Your task to perform on an android device: see tabs open on other devices in the chrome app Image 0: 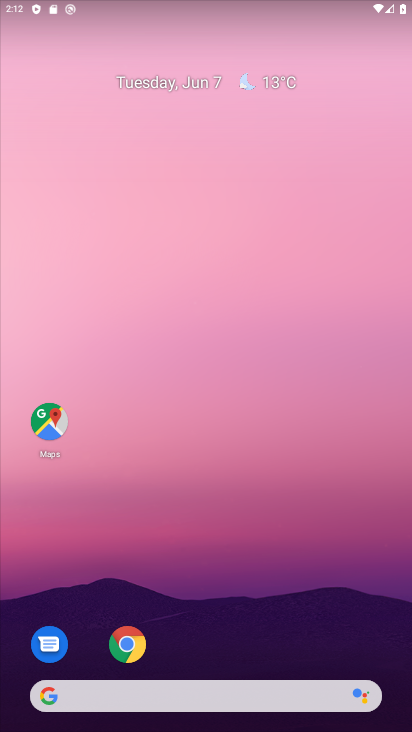
Step 0: press home button
Your task to perform on an android device: see tabs open on other devices in the chrome app Image 1: 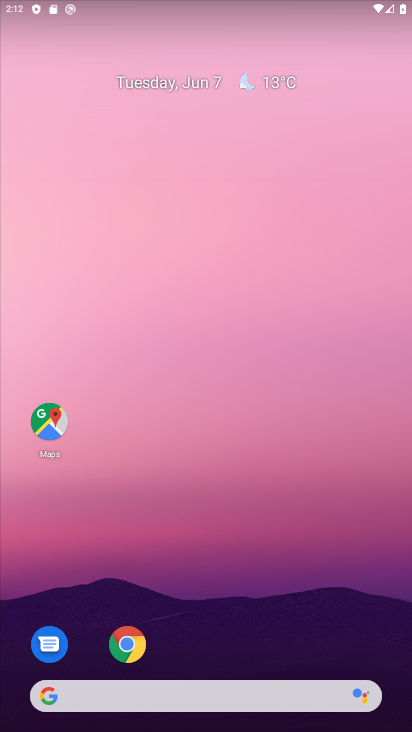
Step 1: click (124, 638)
Your task to perform on an android device: see tabs open on other devices in the chrome app Image 2: 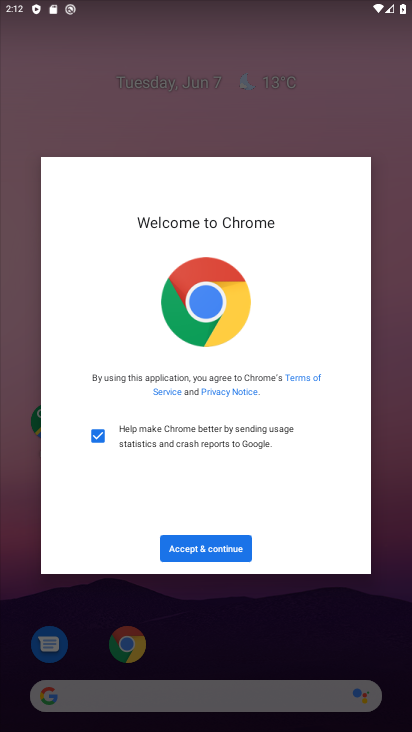
Step 2: click (206, 545)
Your task to perform on an android device: see tabs open on other devices in the chrome app Image 3: 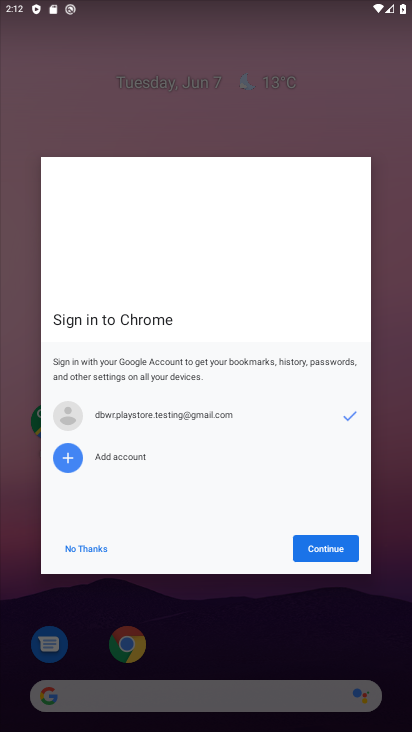
Step 3: click (330, 550)
Your task to perform on an android device: see tabs open on other devices in the chrome app Image 4: 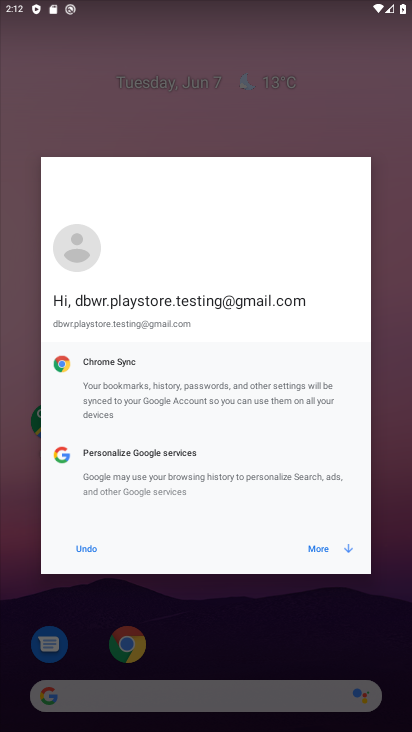
Step 4: click (325, 546)
Your task to perform on an android device: see tabs open on other devices in the chrome app Image 5: 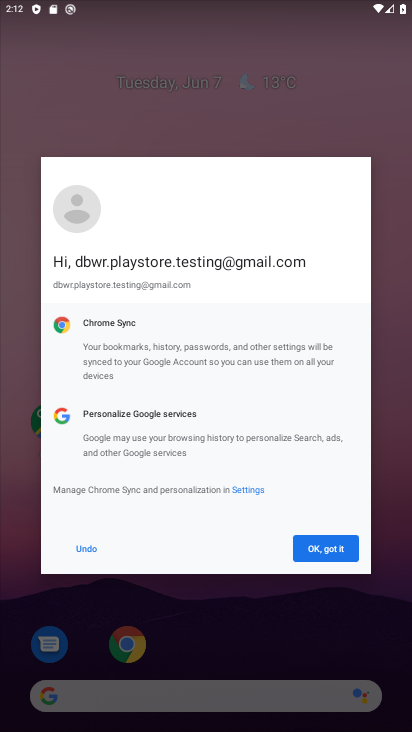
Step 5: click (325, 546)
Your task to perform on an android device: see tabs open on other devices in the chrome app Image 6: 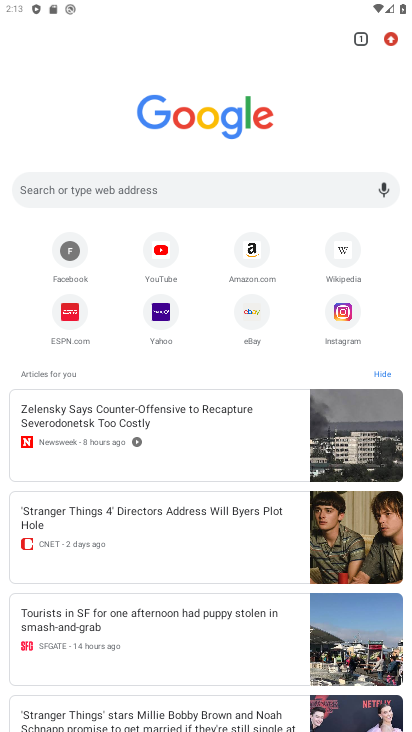
Step 6: click (393, 36)
Your task to perform on an android device: see tabs open on other devices in the chrome app Image 7: 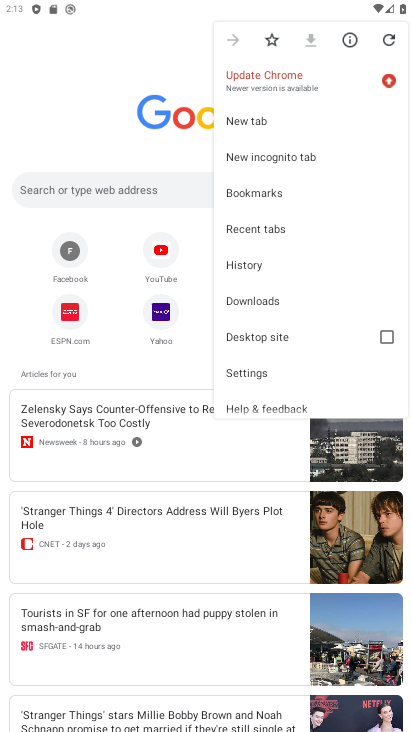
Step 7: click (295, 230)
Your task to perform on an android device: see tabs open on other devices in the chrome app Image 8: 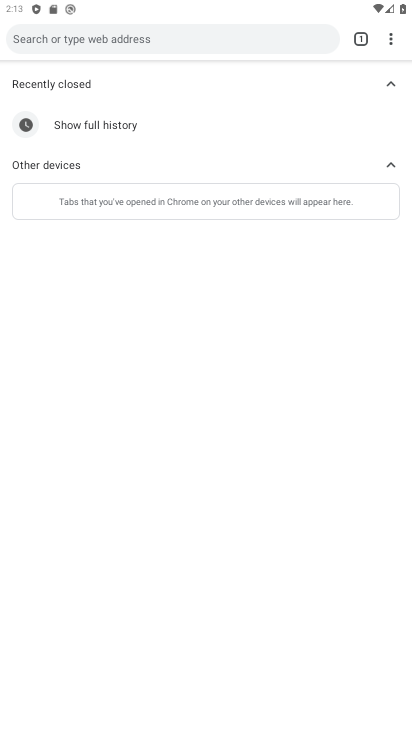
Step 8: task complete